Your task to perform on an android device: Is it going to rain this weekend? Image 0: 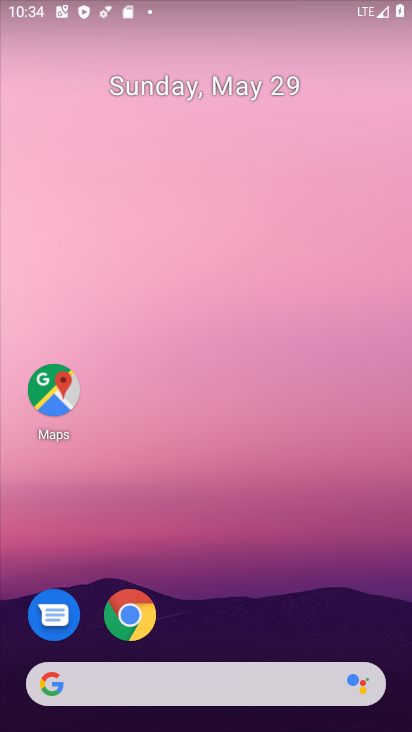
Step 0: click (199, 692)
Your task to perform on an android device: Is it going to rain this weekend? Image 1: 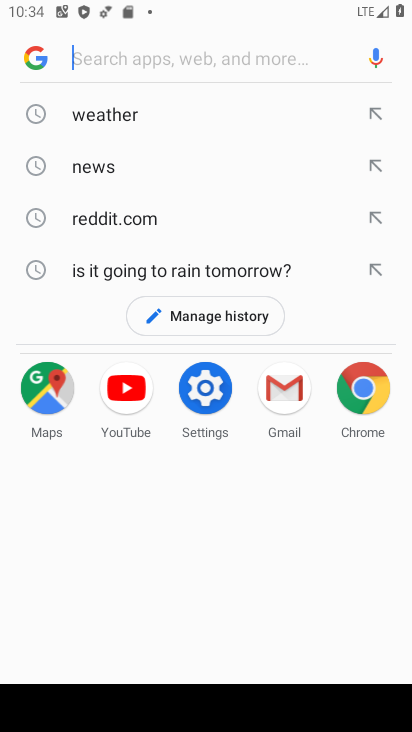
Step 1: click (151, 115)
Your task to perform on an android device: Is it going to rain this weekend? Image 2: 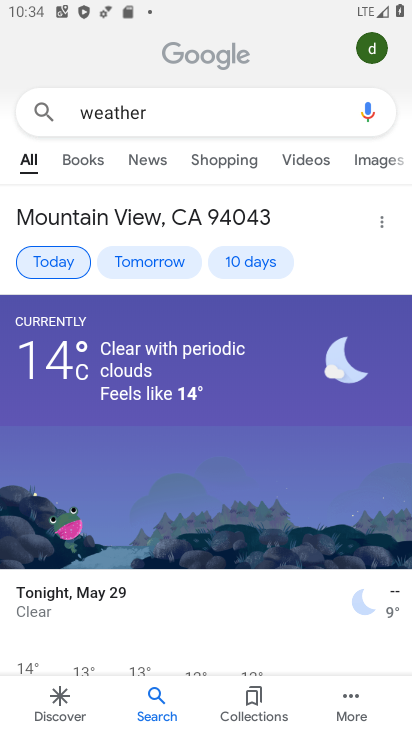
Step 2: click (267, 261)
Your task to perform on an android device: Is it going to rain this weekend? Image 3: 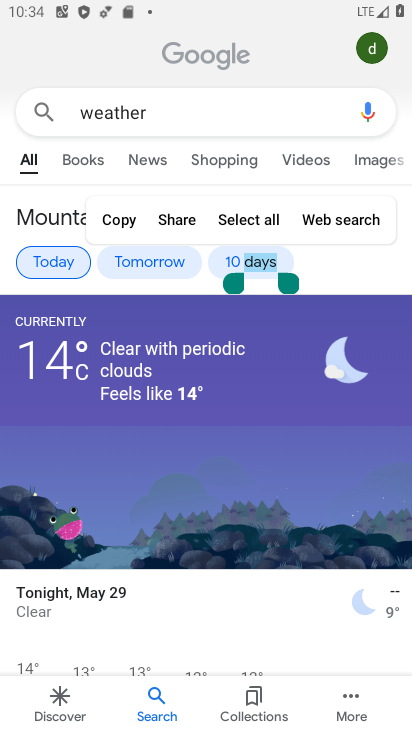
Step 3: click (235, 261)
Your task to perform on an android device: Is it going to rain this weekend? Image 4: 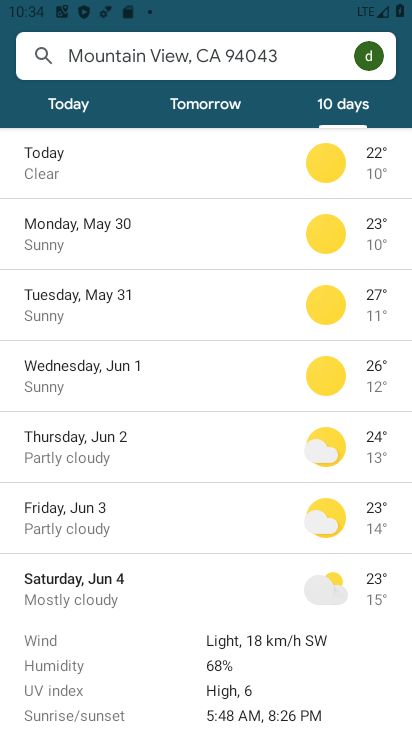
Step 4: task complete